Your task to perform on an android device: Search for Mexican restaurants on Maps Image 0: 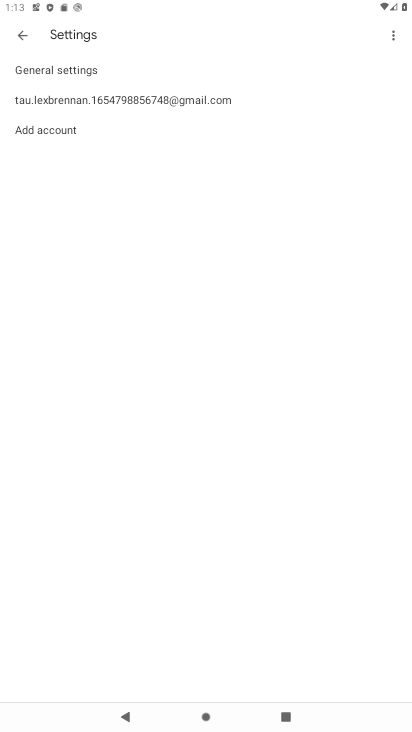
Step 0: press back button
Your task to perform on an android device: Search for Mexican restaurants on Maps Image 1: 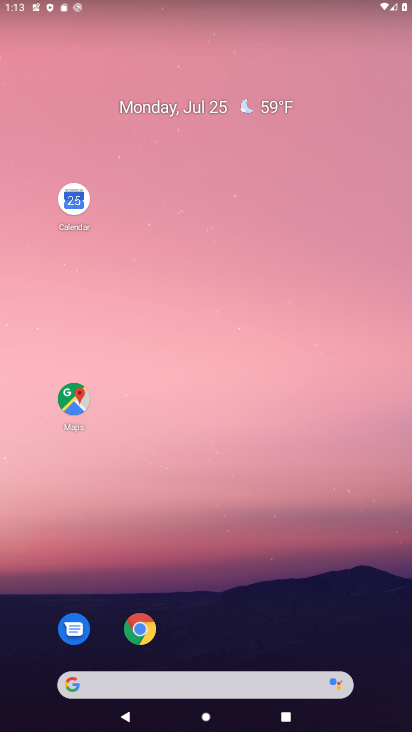
Step 1: click (75, 390)
Your task to perform on an android device: Search for Mexican restaurants on Maps Image 2: 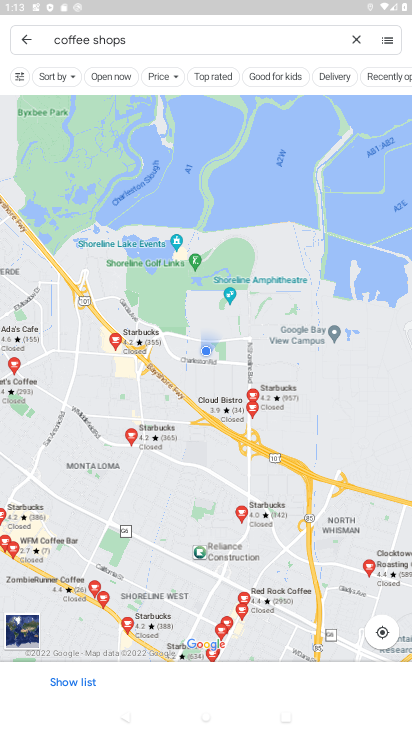
Step 2: click (362, 36)
Your task to perform on an android device: Search for Mexican restaurants on Maps Image 3: 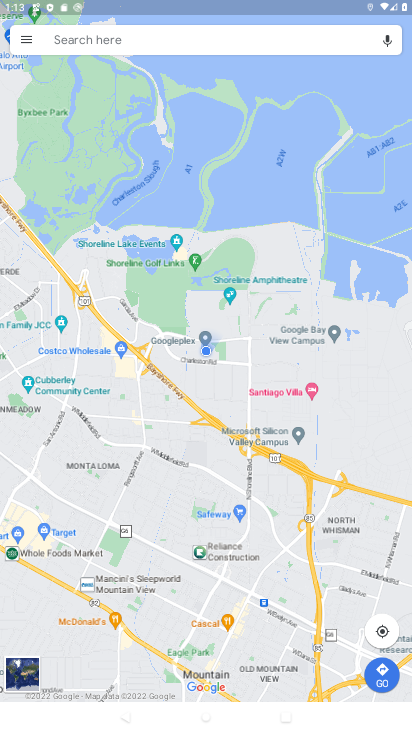
Step 3: click (220, 41)
Your task to perform on an android device: Search for Mexican restaurants on Maps Image 4: 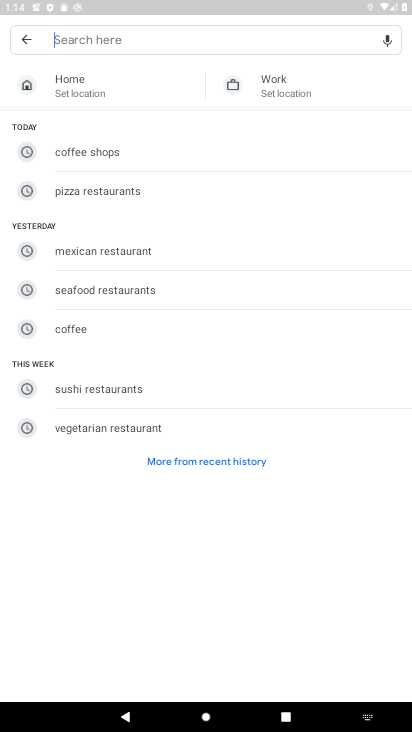
Step 4: type "mexican restaurants"
Your task to perform on an android device: Search for Mexican restaurants on Maps Image 5: 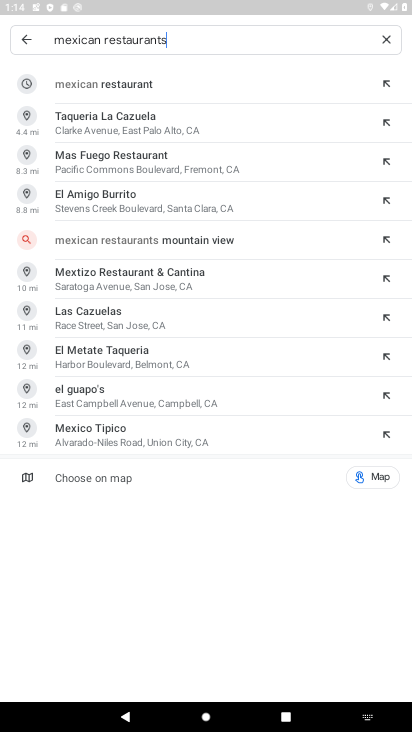
Step 5: click (69, 80)
Your task to perform on an android device: Search for Mexican restaurants on Maps Image 6: 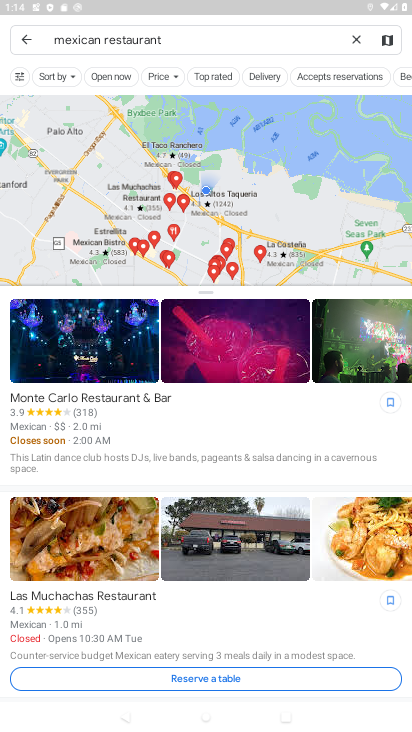
Step 6: task complete